Your task to perform on an android device: turn off wifi Image 0: 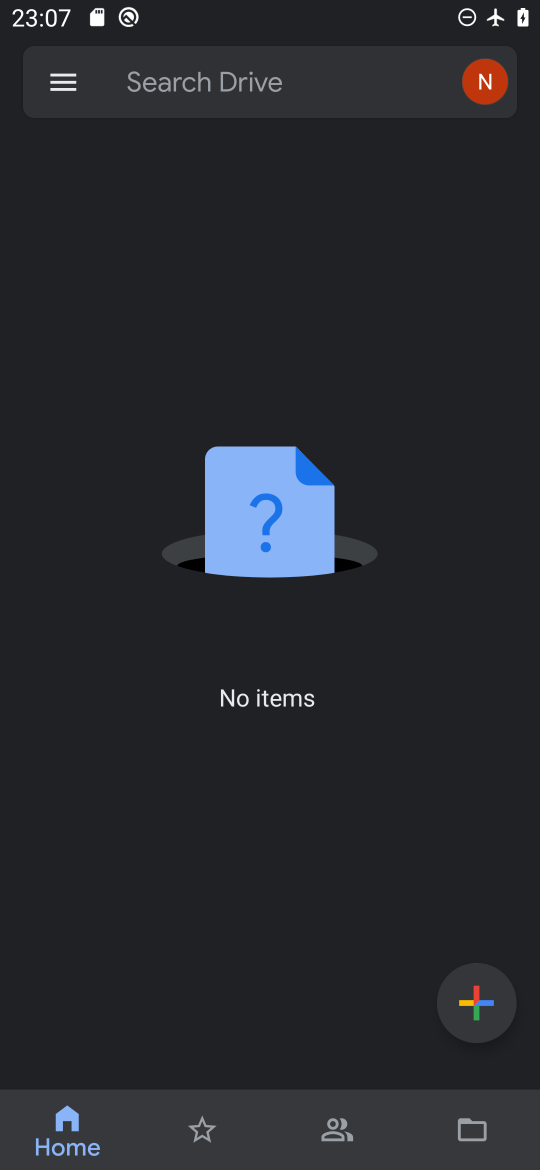
Step 0: press home button
Your task to perform on an android device: turn off wifi Image 1: 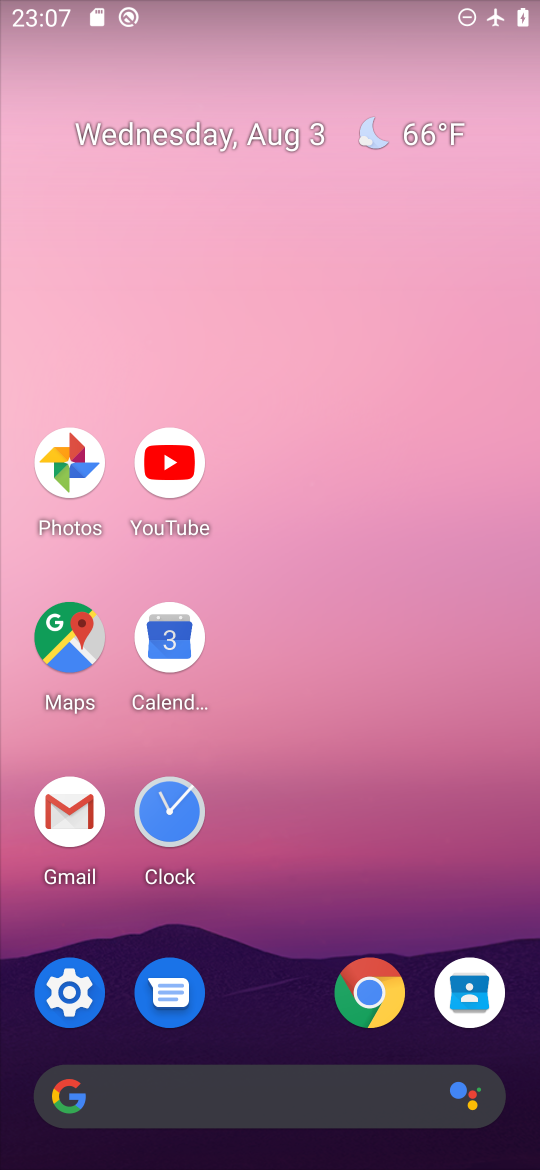
Step 1: click (74, 982)
Your task to perform on an android device: turn off wifi Image 2: 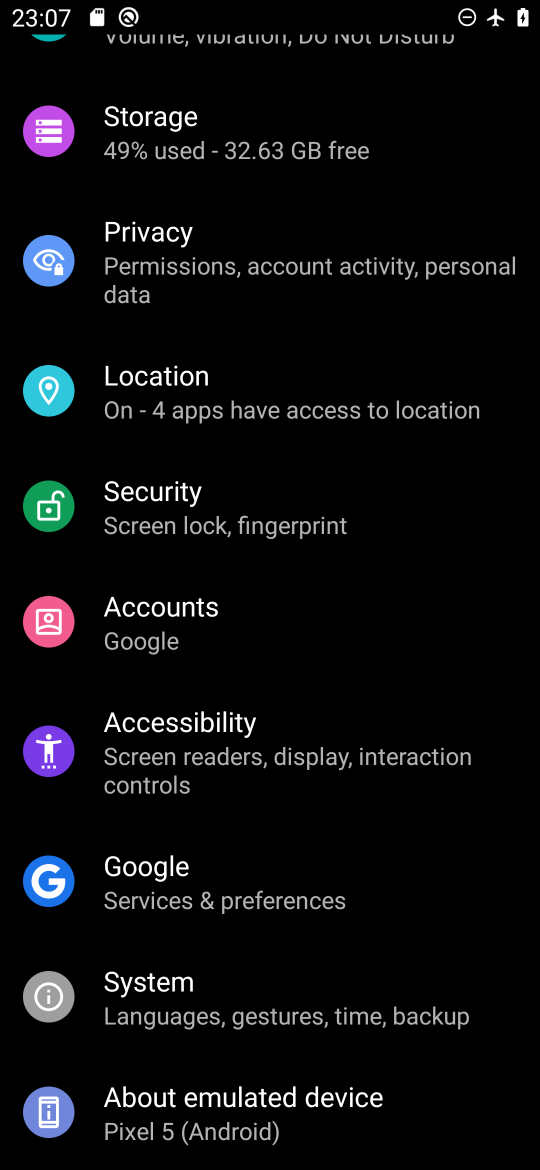
Step 2: drag from (266, 290) to (329, 1162)
Your task to perform on an android device: turn off wifi Image 3: 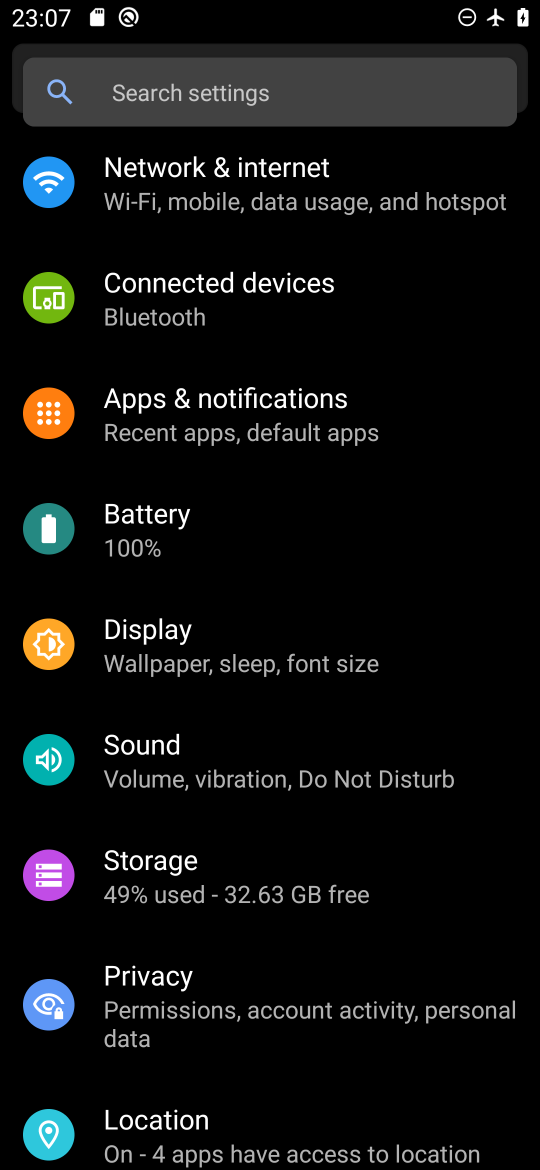
Step 3: drag from (324, 330) to (316, 1083)
Your task to perform on an android device: turn off wifi Image 4: 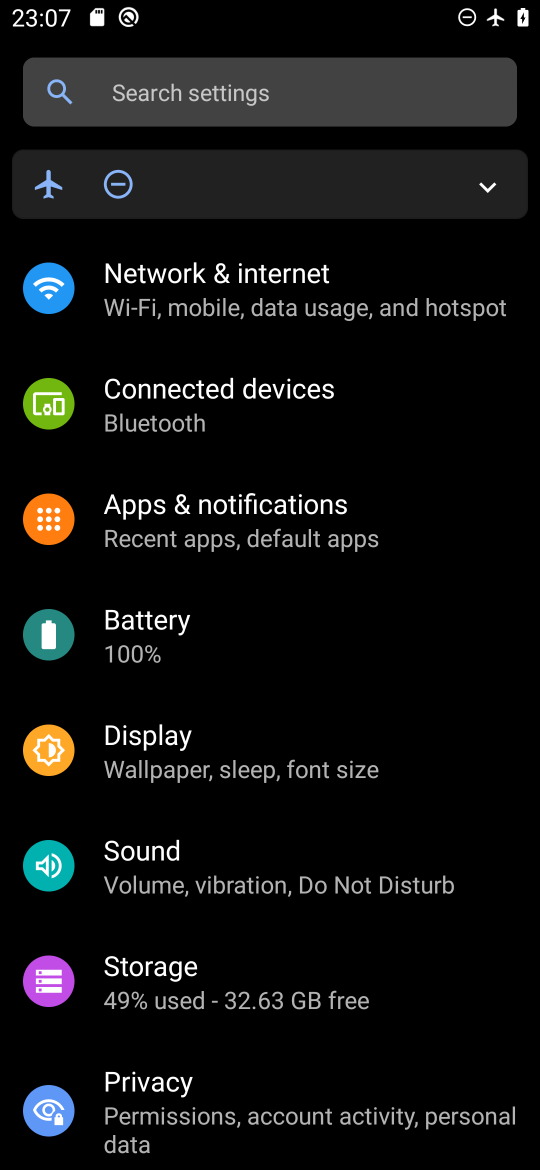
Step 4: click (198, 291)
Your task to perform on an android device: turn off wifi Image 5: 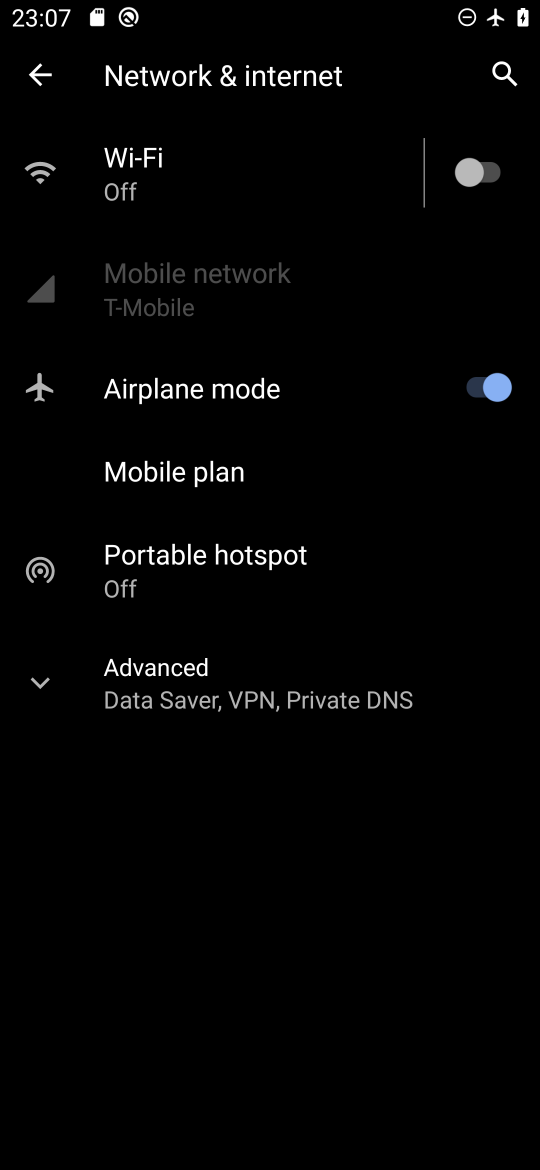
Step 5: task complete